Your task to perform on an android device: turn on bluetooth scan Image 0: 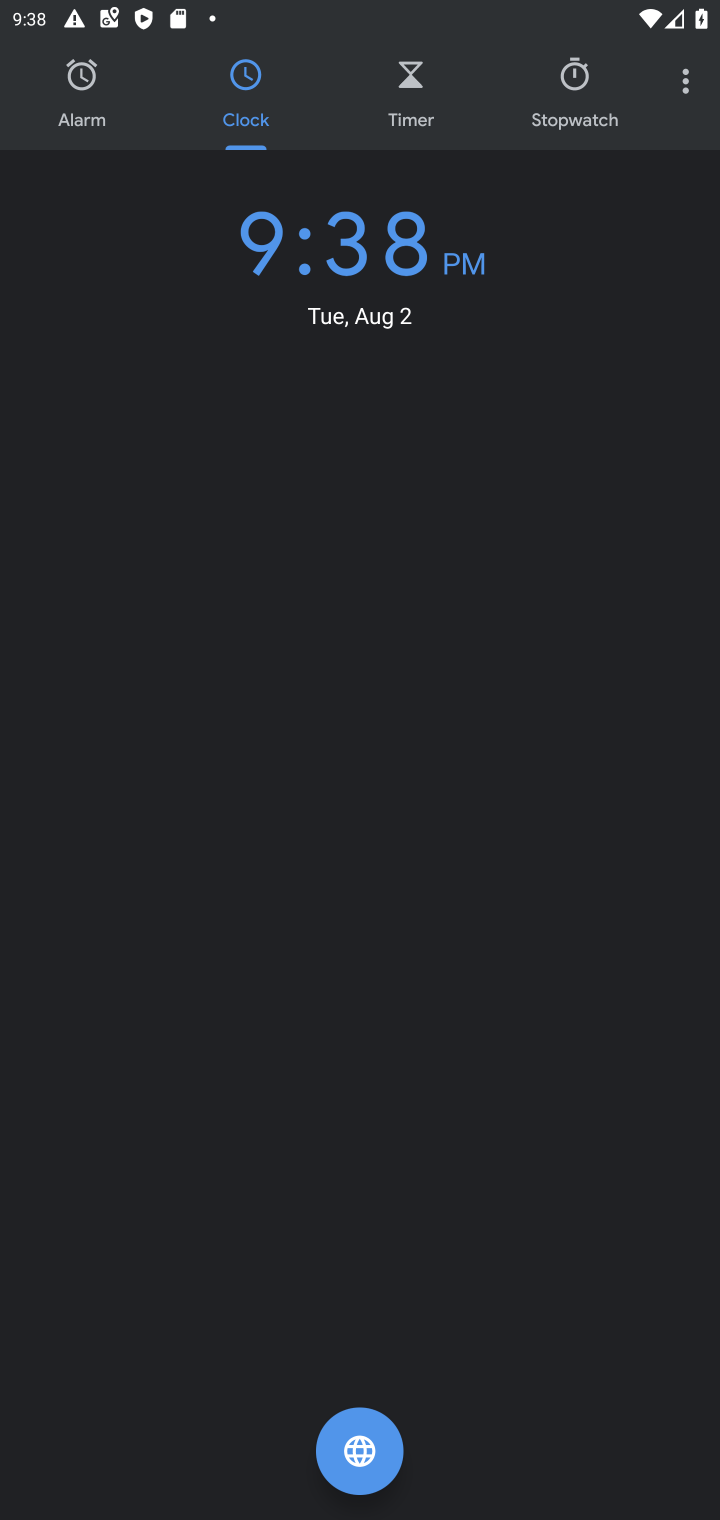
Step 0: drag from (281, 1264) to (319, 481)
Your task to perform on an android device: turn on bluetooth scan Image 1: 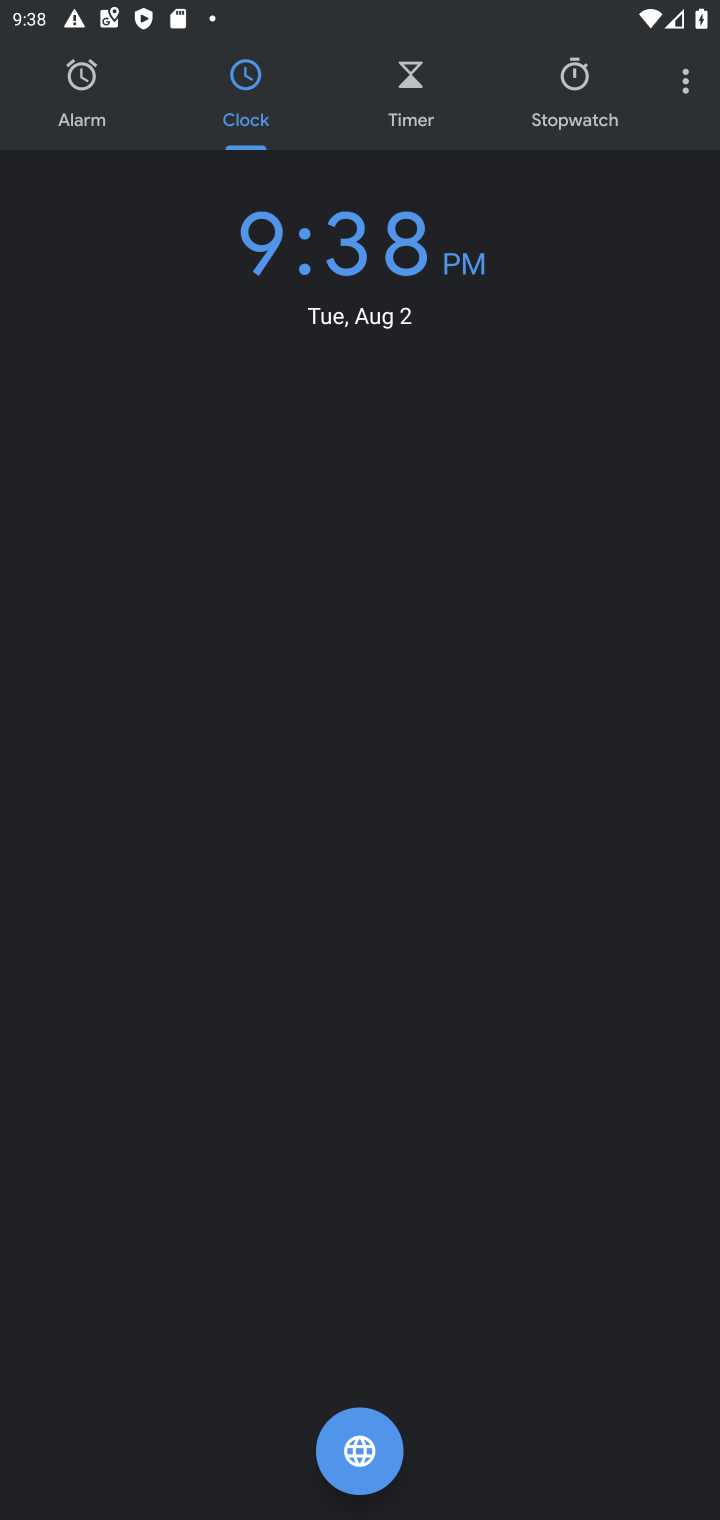
Step 1: task complete